Your task to perform on an android device: turn off data saver in the chrome app Image 0: 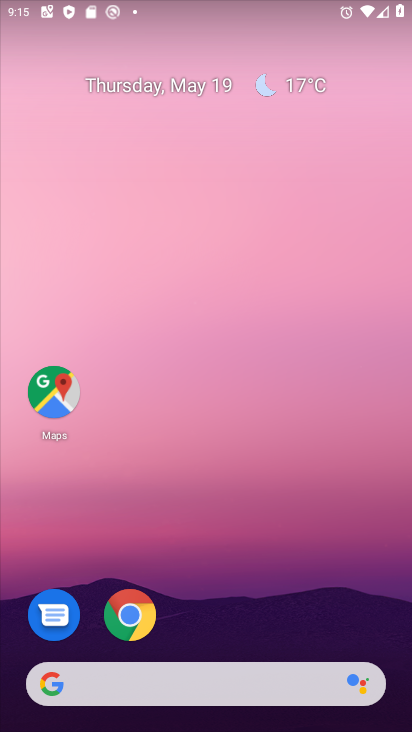
Step 0: press home button
Your task to perform on an android device: turn off data saver in the chrome app Image 1: 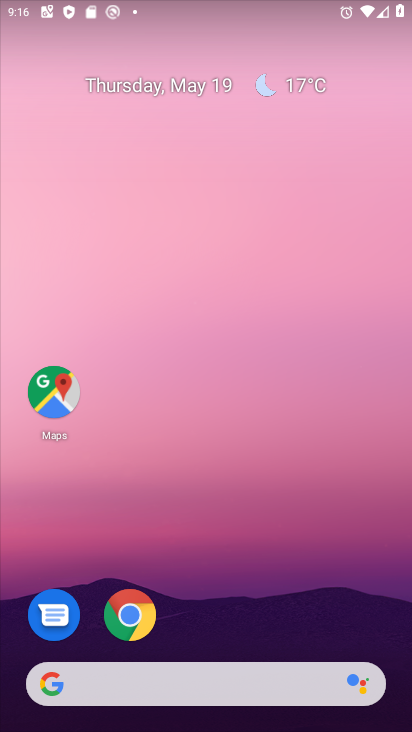
Step 1: click (114, 622)
Your task to perform on an android device: turn off data saver in the chrome app Image 2: 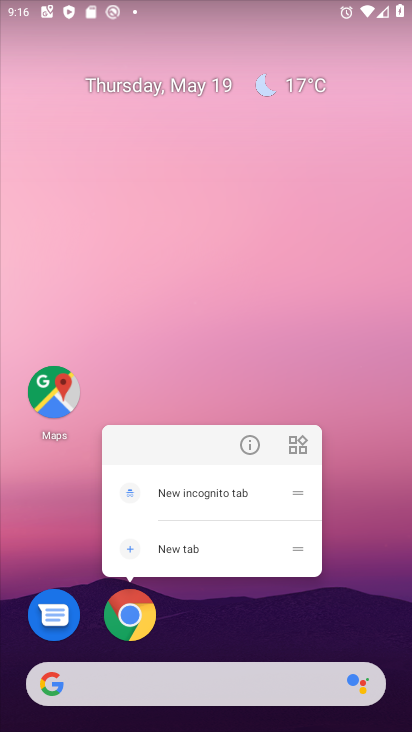
Step 2: click (114, 622)
Your task to perform on an android device: turn off data saver in the chrome app Image 3: 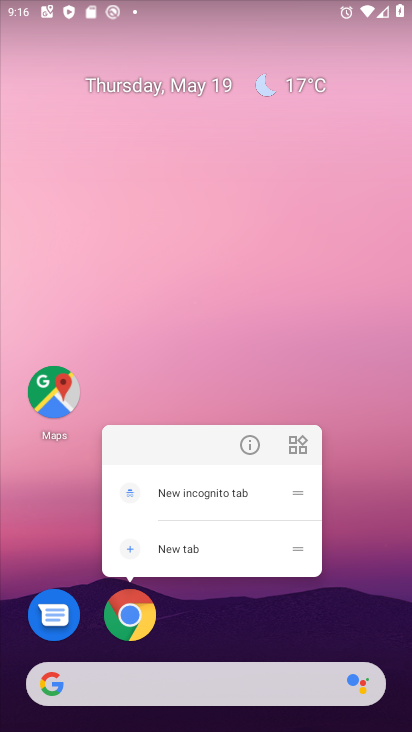
Step 3: click (114, 622)
Your task to perform on an android device: turn off data saver in the chrome app Image 4: 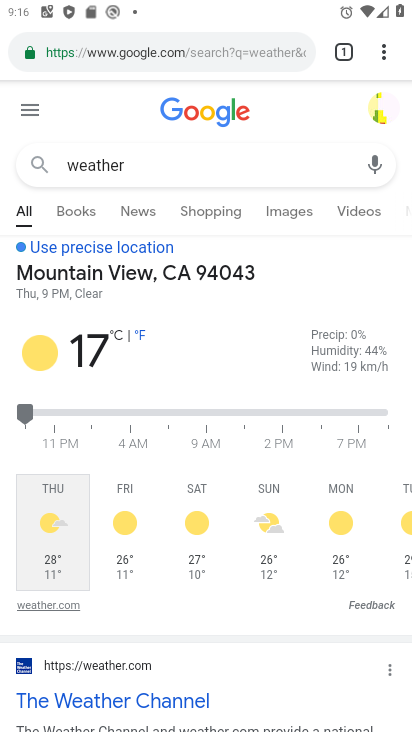
Step 4: drag from (378, 51) to (243, 624)
Your task to perform on an android device: turn off data saver in the chrome app Image 5: 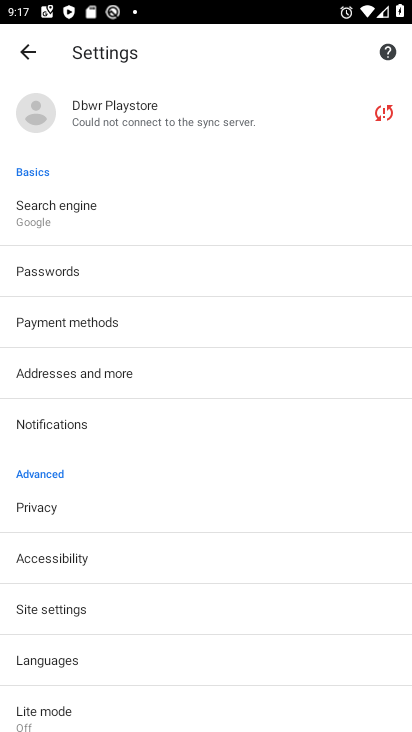
Step 5: click (109, 699)
Your task to perform on an android device: turn off data saver in the chrome app Image 6: 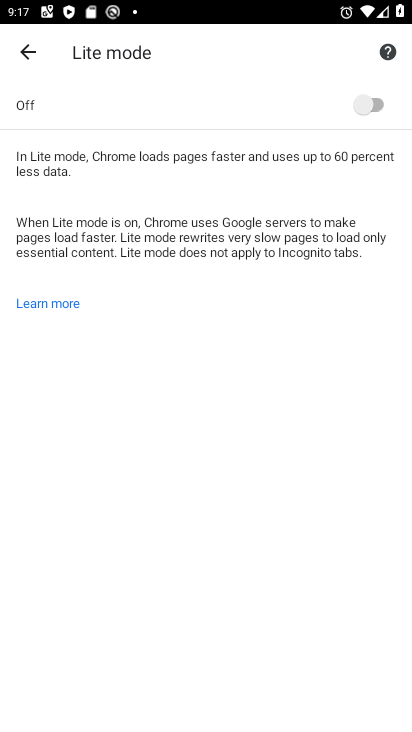
Step 6: task complete